Your task to perform on an android device: change timer sound Image 0: 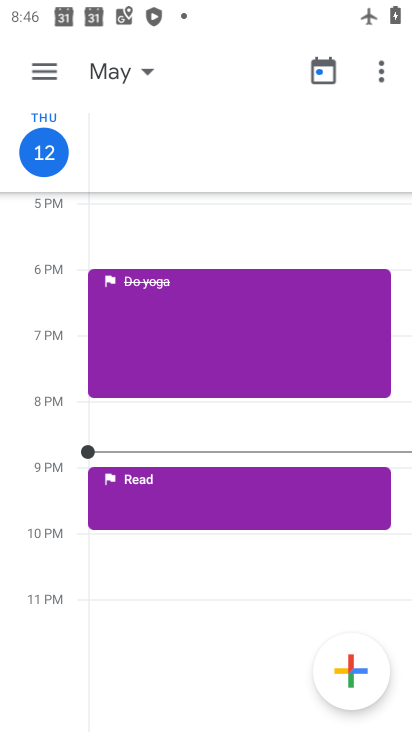
Step 0: press home button
Your task to perform on an android device: change timer sound Image 1: 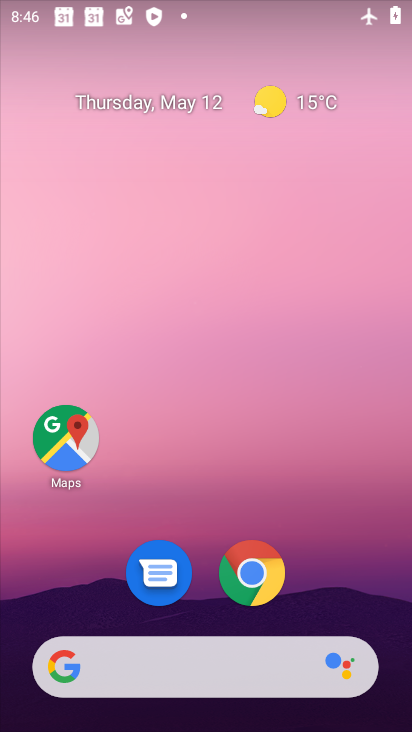
Step 1: drag from (323, 466) to (206, 78)
Your task to perform on an android device: change timer sound Image 2: 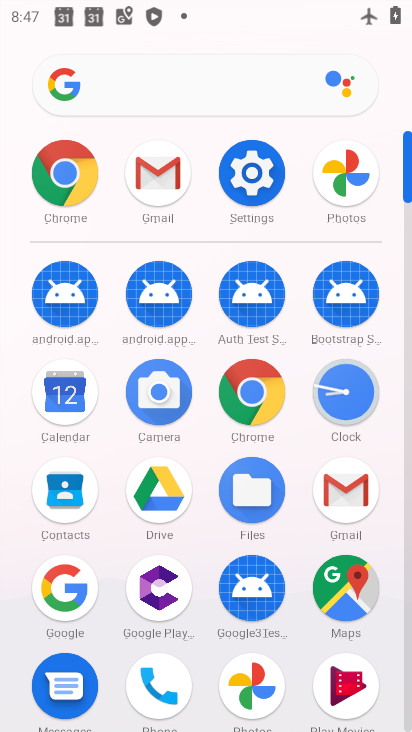
Step 2: click (355, 396)
Your task to perform on an android device: change timer sound Image 3: 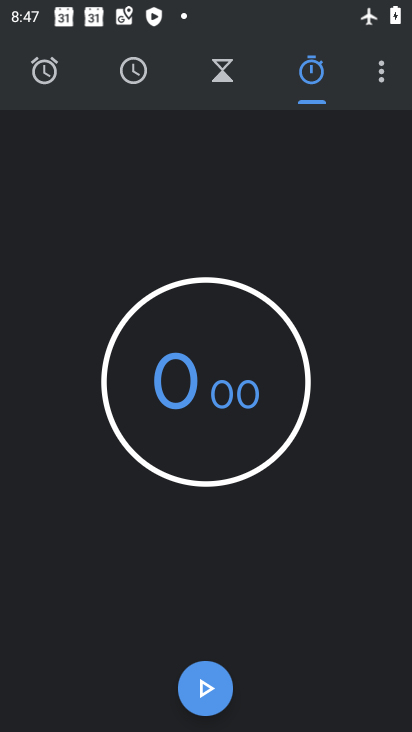
Step 3: click (387, 69)
Your task to perform on an android device: change timer sound Image 4: 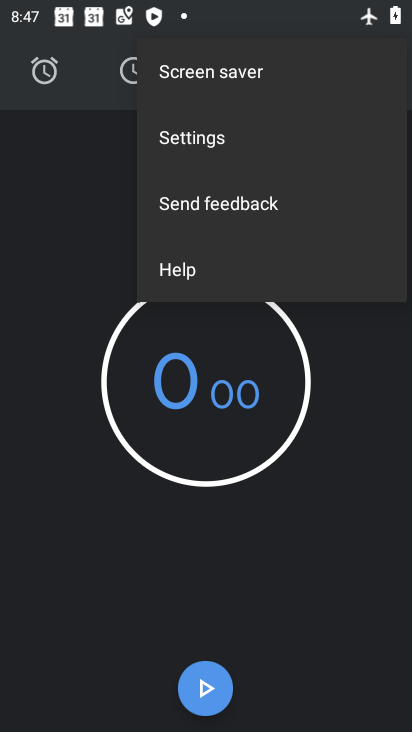
Step 4: click (201, 131)
Your task to perform on an android device: change timer sound Image 5: 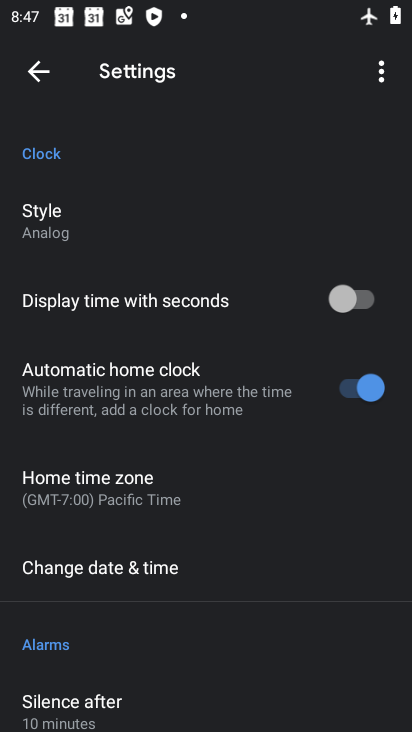
Step 5: drag from (232, 591) to (182, 419)
Your task to perform on an android device: change timer sound Image 6: 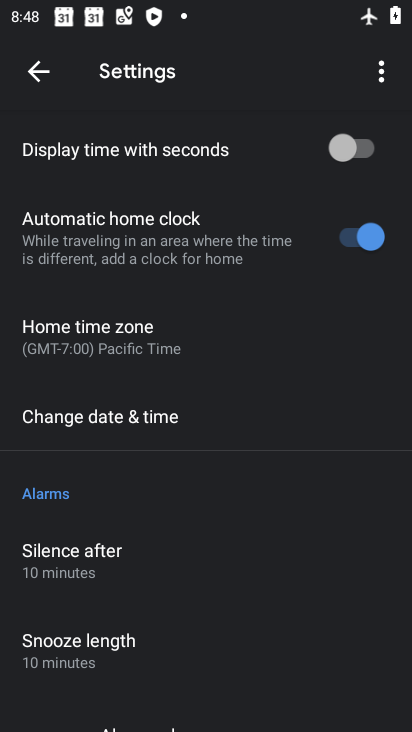
Step 6: drag from (229, 551) to (184, 294)
Your task to perform on an android device: change timer sound Image 7: 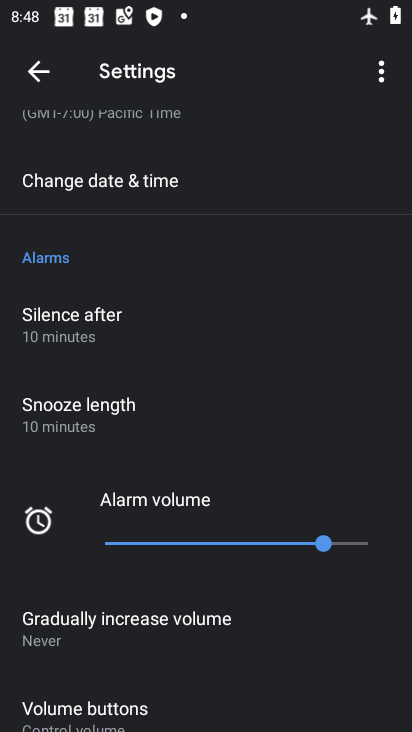
Step 7: drag from (206, 427) to (160, 94)
Your task to perform on an android device: change timer sound Image 8: 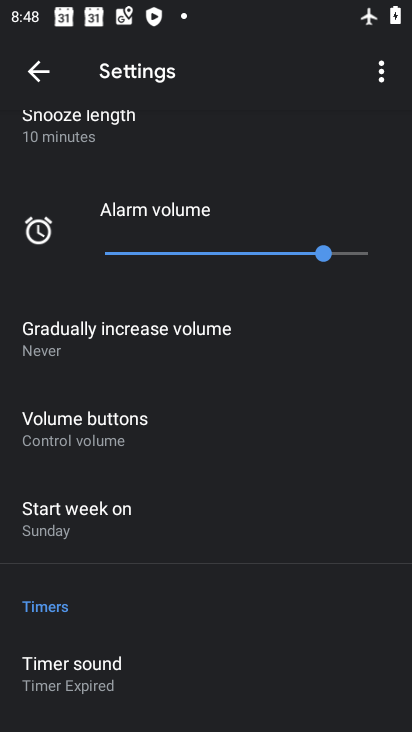
Step 8: click (106, 666)
Your task to perform on an android device: change timer sound Image 9: 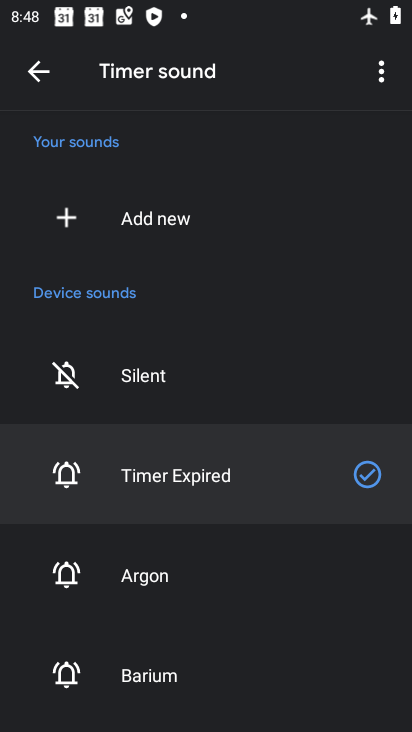
Step 9: task complete